Your task to perform on an android device: Go to Amazon Image 0: 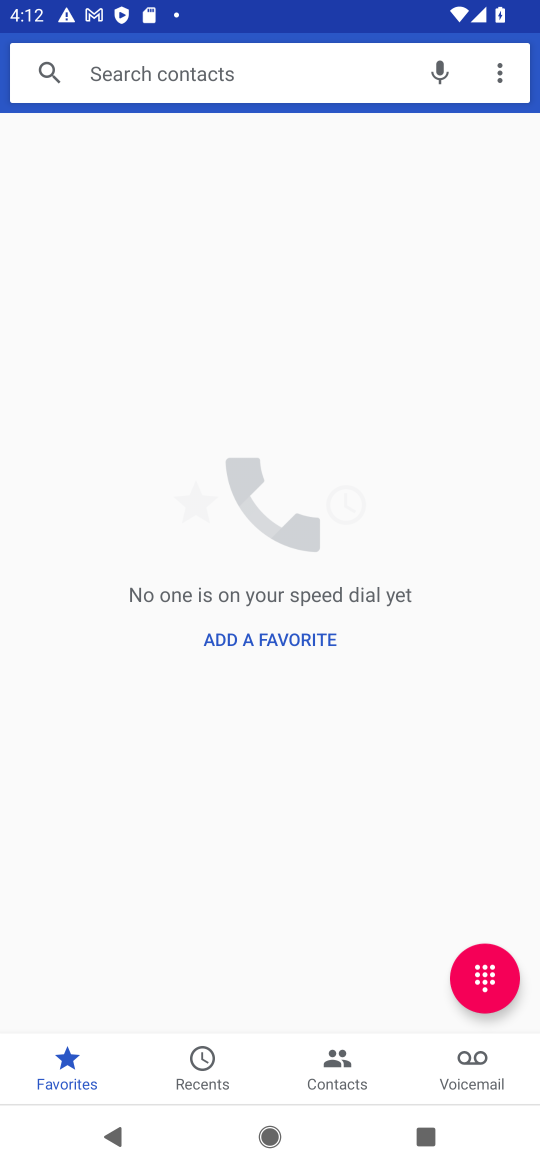
Step 0: press home button
Your task to perform on an android device: Go to Amazon Image 1: 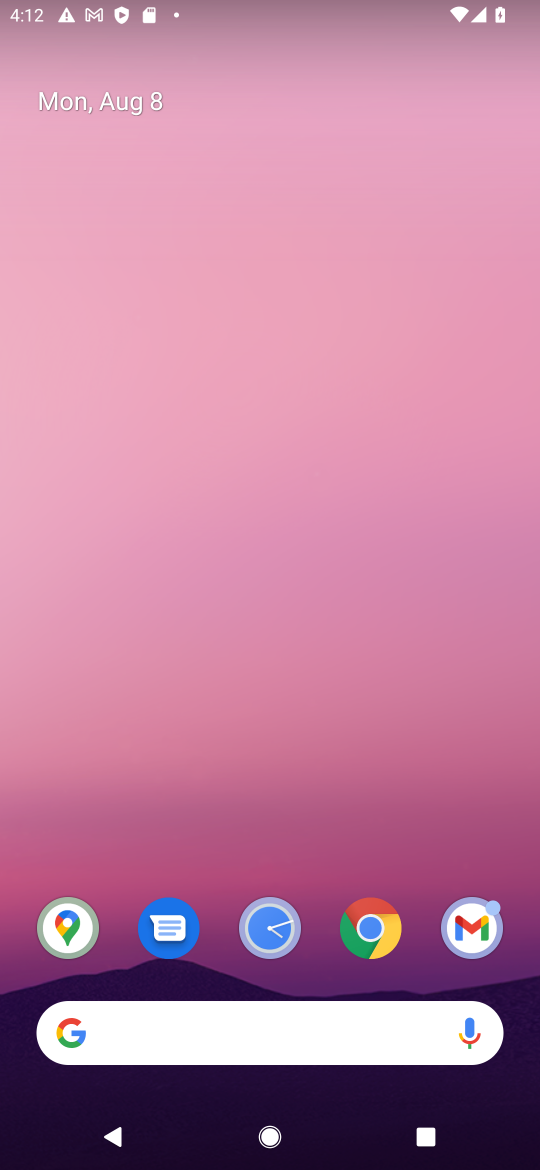
Step 1: click (394, 916)
Your task to perform on an android device: Go to Amazon Image 2: 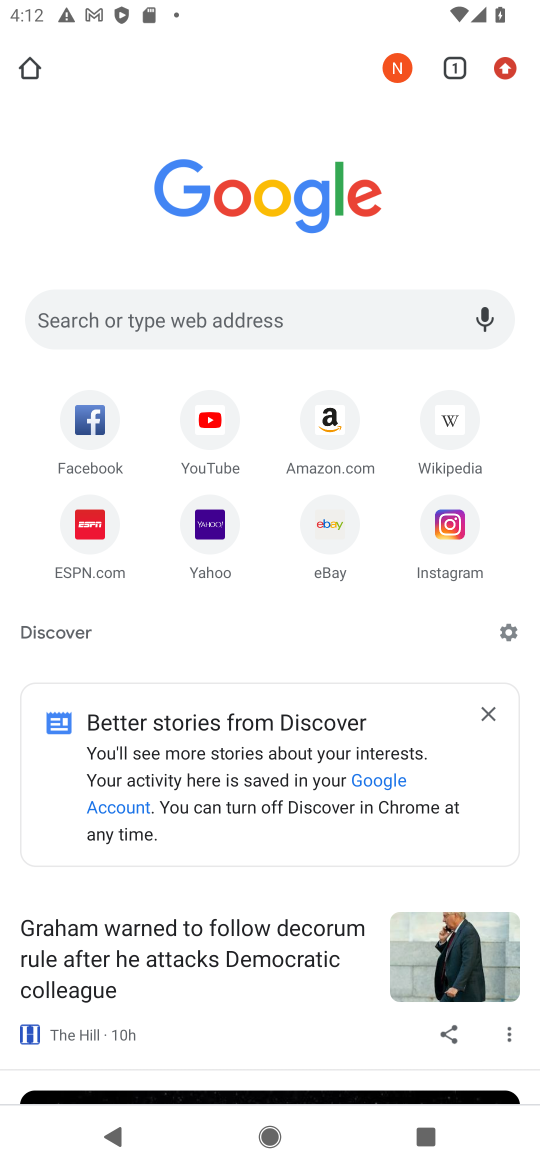
Step 2: click (339, 448)
Your task to perform on an android device: Go to Amazon Image 3: 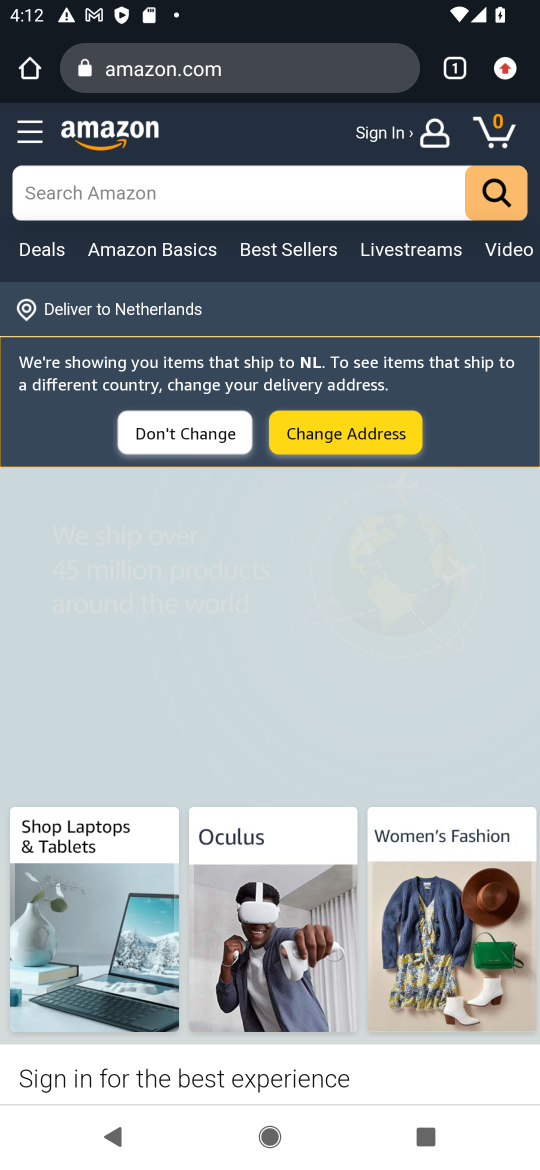
Step 3: task complete